Your task to perform on an android device: Open display settings Image 0: 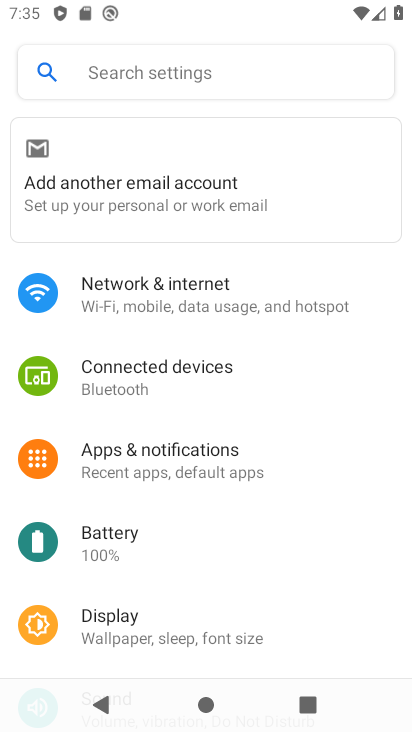
Step 0: click (244, 609)
Your task to perform on an android device: Open display settings Image 1: 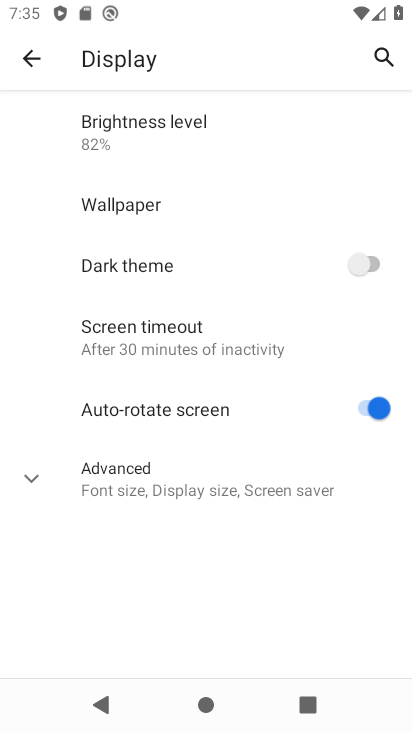
Step 1: task complete